Your task to perform on an android device: What's the weather going to be tomorrow? Image 0: 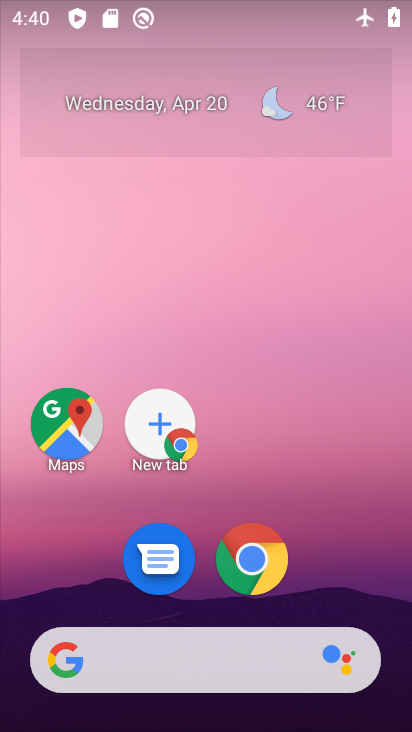
Step 0: click (380, 580)
Your task to perform on an android device: What's the weather going to be tomorrow? Image 1: 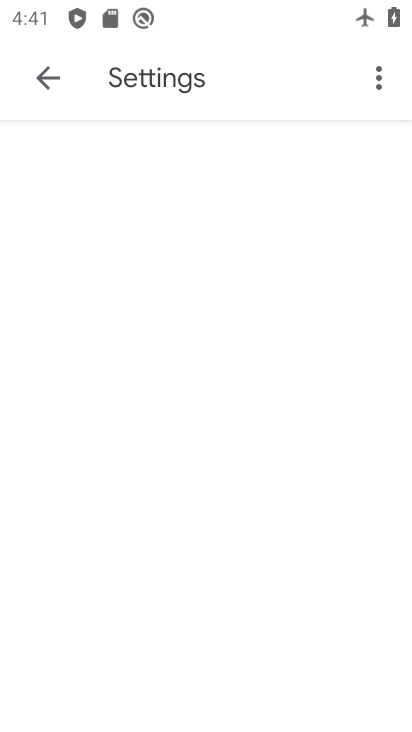
Step 1: drag from (380, 580) to (303, 252)
Your task to perform on an android device: What's the weather going to be tomorrow? Image 2: 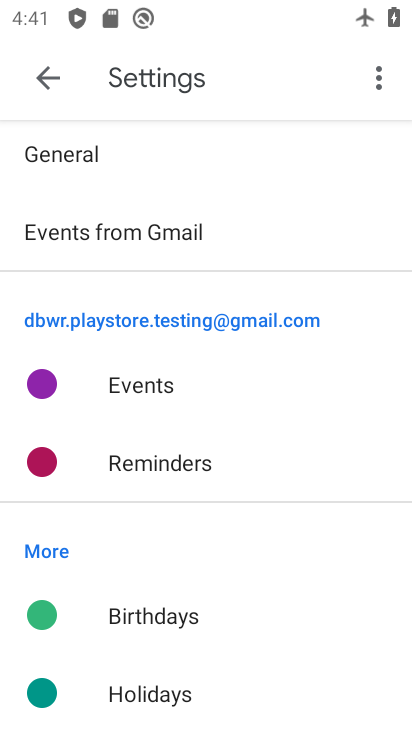
Step 2: press home button
Your task to perform on an android device: What's the weather going to be tomorrow? Image 3: 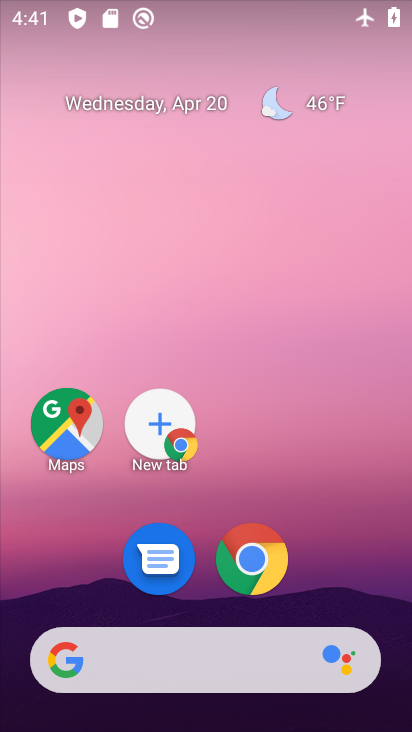
Step 3: drag from (336, 547) to (271, 145)
Your task to perform on an android device: What's the weather going to be tomorrow? Image 4: 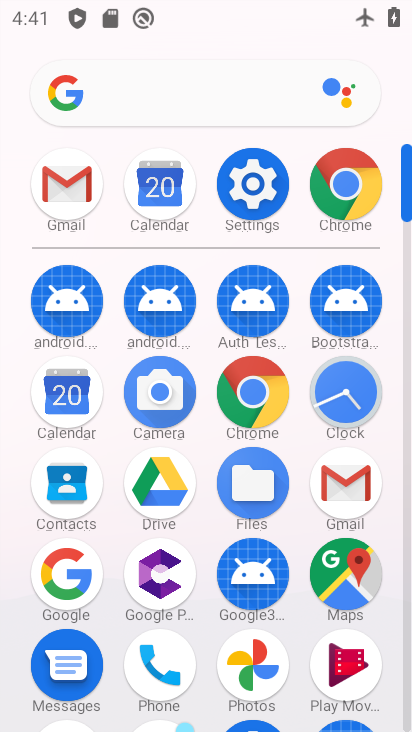
Step 4: click (166, 104)
Your task to perform on an android device: What's the weather going to be tomorrow? Image 5: 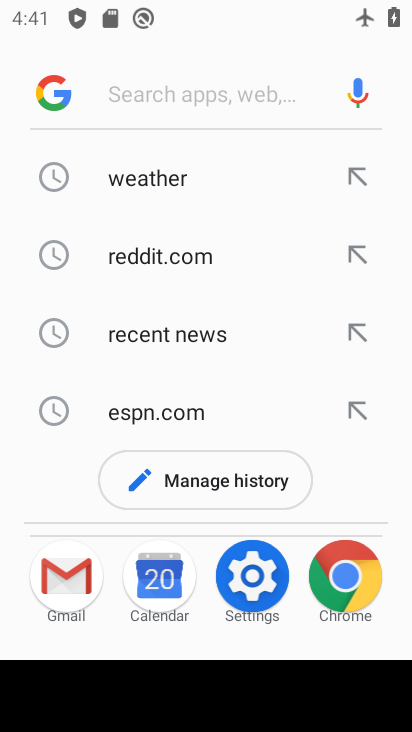
Step 5: click (157, 159)
Your task to perform on an android device: What's the weather going to be tomorrow? Image 6: 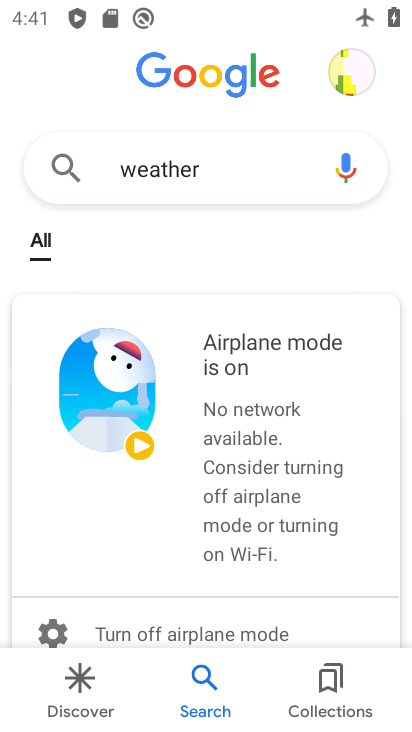
Step 6: task complete